Your task to perform on an android device: toggle pop-ups in chrome Image 0: 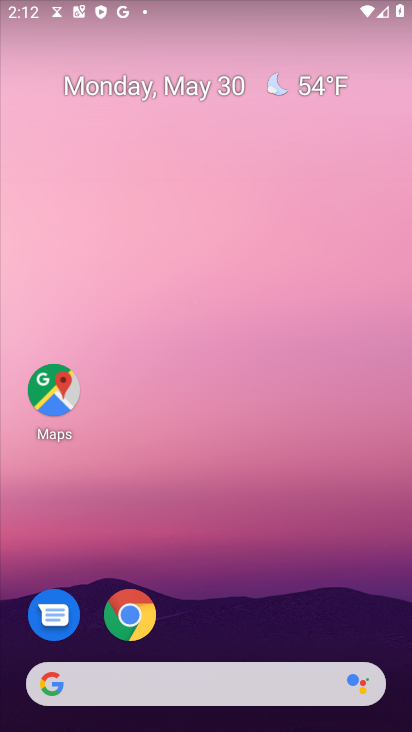
Step 0: drag from (340, 546) to (330, 3)
Your task to perform on an android device: toggle pop-ups in chrome Image 1: 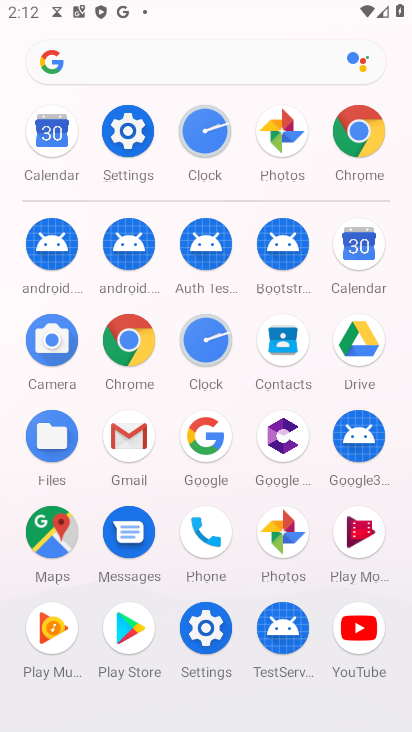
Step 1: click (375, 123)
Your task to perform on an android device: toggle pop-ups in chrome Image 2: 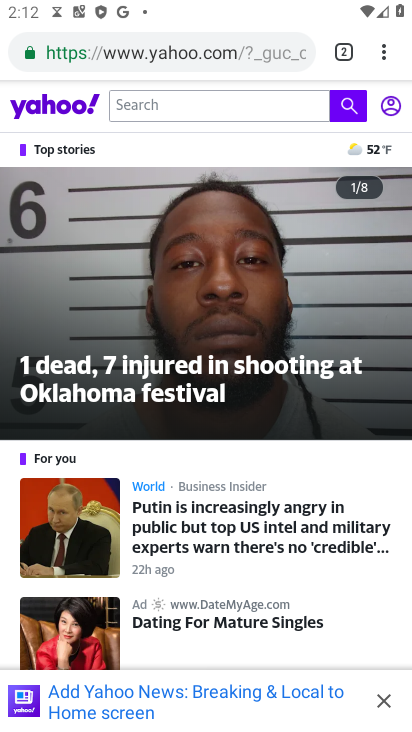
Step 2: drag from (389, 62) to (206, 644)
Your task to perform on an android device: toggle pop-ups in chrome Image 3: 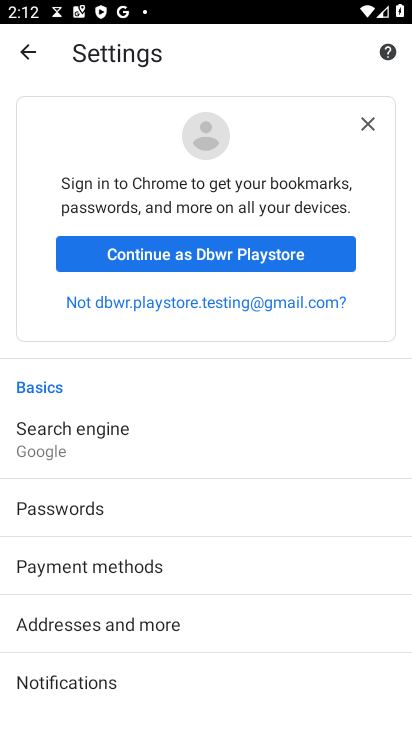
Step 3: drag from (199, 628) to (180, 282)
Your task to perform on an android device: toggle pop-ups in chrome Image 4: 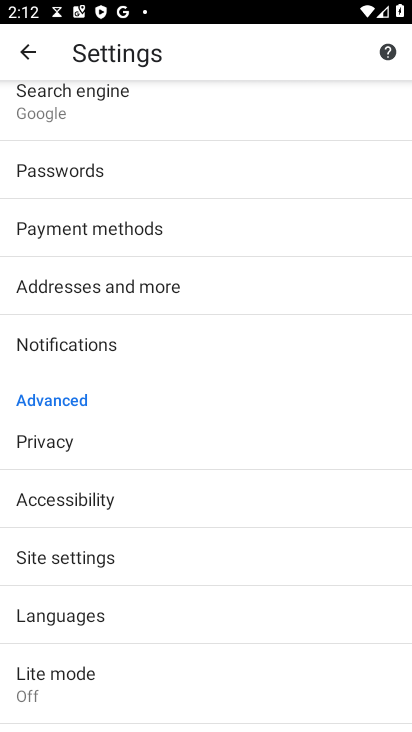
Step 4: click (57, 557)
Your task to perform on an android device: toggle pop-ups in chrome Image 5: 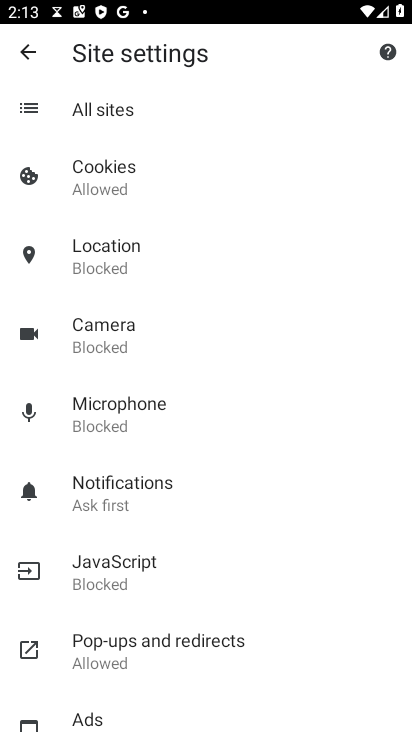
Step 5: click (133, 650)
Your task to perform on an android device: toggle pop-ups in chrome Image 6: 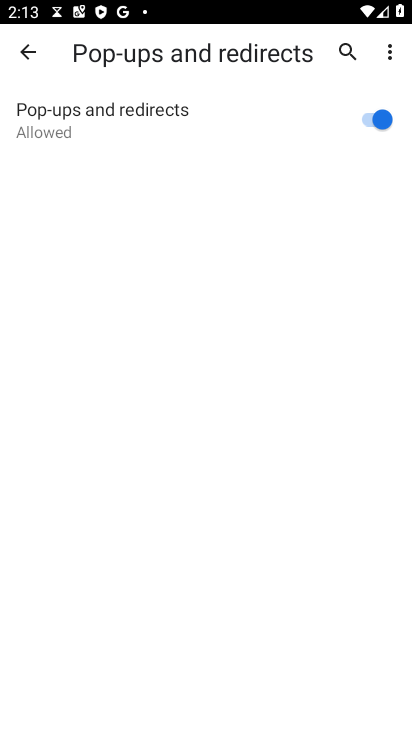
Step 6: click (375, 116)
Your task to perform on an android device: toggle pop-ups in chrome Image 7: 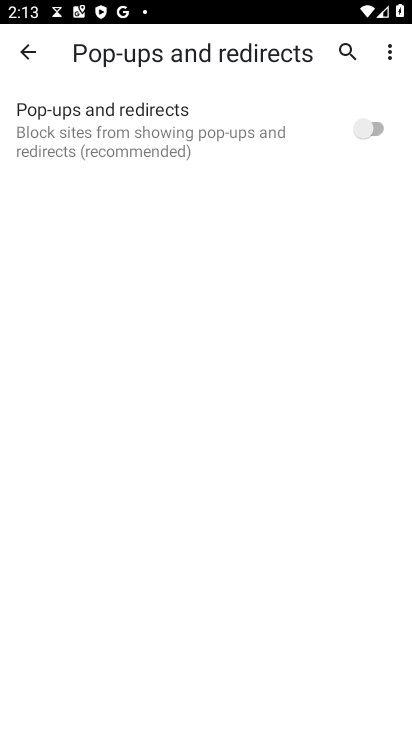
Step 7: task complete